Your task to perform on an android device: Search for "logitech g pro" on walmart.com, select the first entry, and add it to the cart. Image 0: 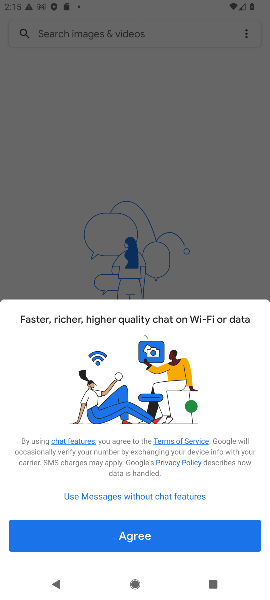
Step 0: press home button
Your task to perform on an android device: Search for "logitech g pro" on walmart.com, select the first entry, and add it to the cart. Image 1: 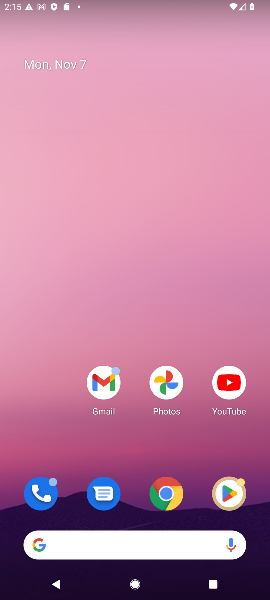
Step 1: drag from (135, 472) to (147, 110)
Your task to perform on an android device: Search for "logitech g pro" on walmart.com, select the first entry, and add it to the cart. Image 2: 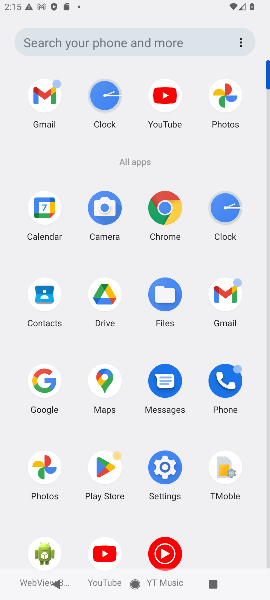
Step 2: click (164, 203)
Your task to perform on an android device: Search for "logitech g pro" on walmart.com, select the first entry, and add it to the cart. Image 3: 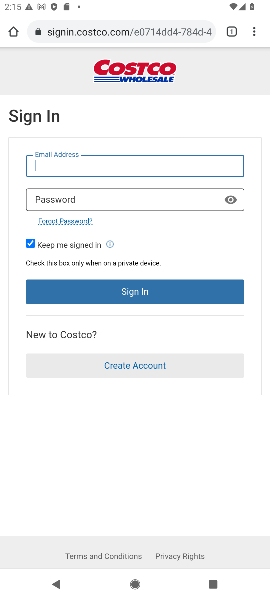
Step 3: click (85, 28)
Your task to perform on an android device: Search for "logitech g pro" on walmart.com, select the first entry, and add it to the cart. Image 4: 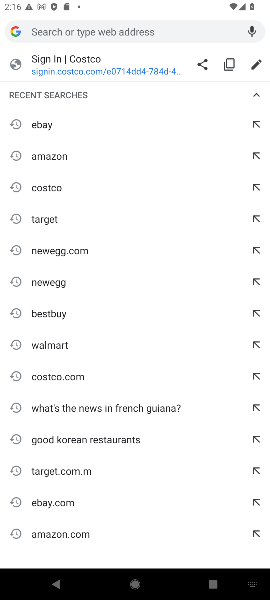
Step 4: type "walmart"
Your task to perform on an android device: Search for "logitech g pro" on walmart.com, select the first entry, and add it to the cart. Image 5: 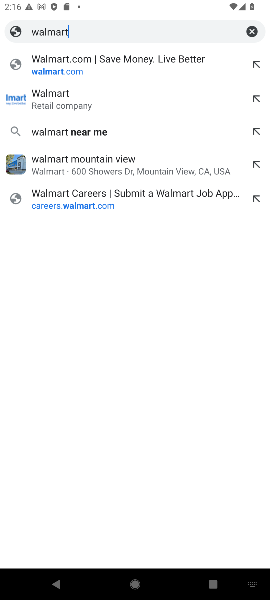
Step 5: click (85, 62)
Your task to perform on an android device: Search for "logitech g pro" on walmart.com, select the first entry, and add it to the cart. Image 6: 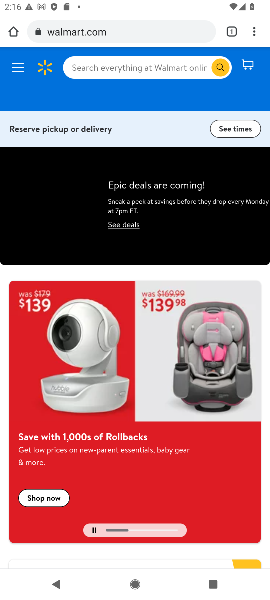
Step 6: click (110, 60)
Your task to perform on an android device: Search for "logitech g pro" on walmart.com, select the first entry, and add it to the cart. Image 7: 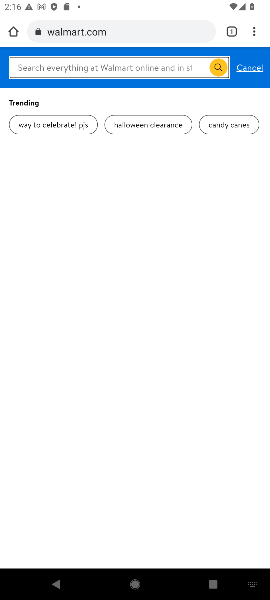
Step 7: type "logitech g pro"
Your task to perform on an android device: Search for "logitech g pro" on walmart.com, select the first entry, and add it to the cart. Image 8: 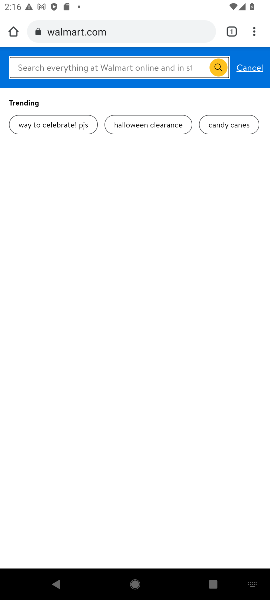
Step 8: type ""
Your task to perform on an android device: Search for "logitech g pro" on walmart.com, select the first entry, and add it to the cart. Image 9: 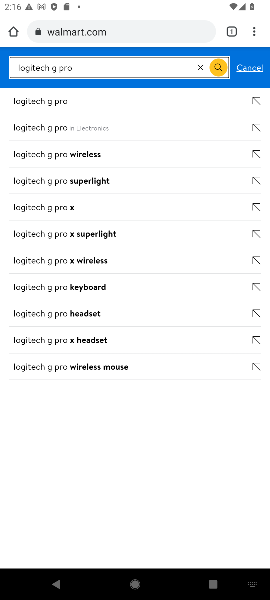
Step 9: click (26, 135)
Your task to perform on an android device: Search for "logitech g pro" on walmart.com, select the first entry, and add it to the cart. Image 10: 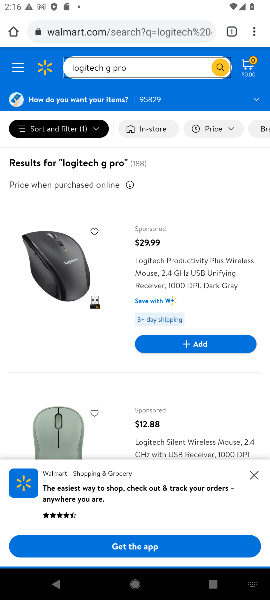
Step 10: click (170, 267)
Your task to perform on an android device: Search for "logitech g pro" on walmart.com, select the first entry, and add it to the cart. Image 11: 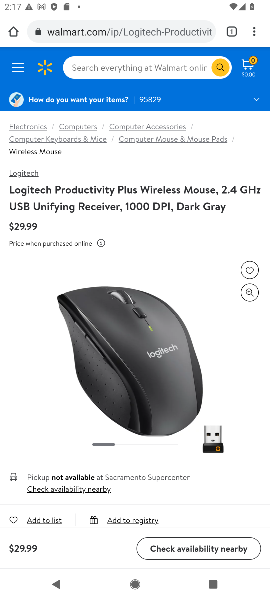
Step 11: drag from (144, 492) to (165, 146)
Your task to perform on an android device: Search for "logitech g pro" on walmart.com, select the first entry, and add it to the cart. Image 12: 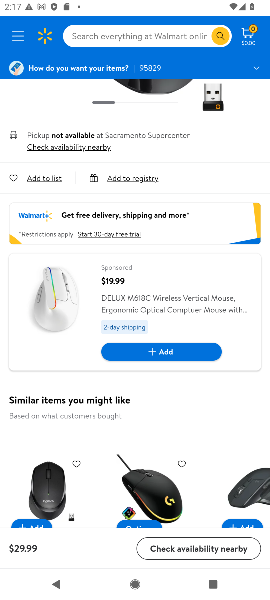
Step 12: drag from (162, 437) to (197, 127)
Your task to perform on an android device: Search for "logitech g pro" on walmart.com, select the first entry, and add it to the cart. Image 13: 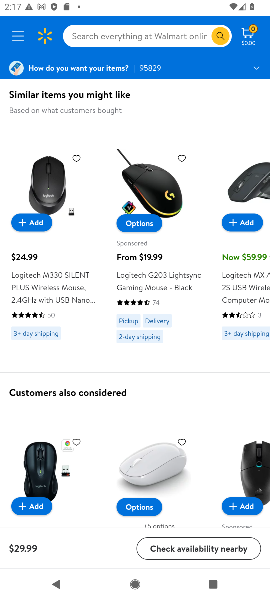
Step 13: drag from (103, 547) to (152, 144)
Your task to perform on an android device: Search for "logitech g pro" on walmart.com, select the first entry, and add it to the cart. Image 14: 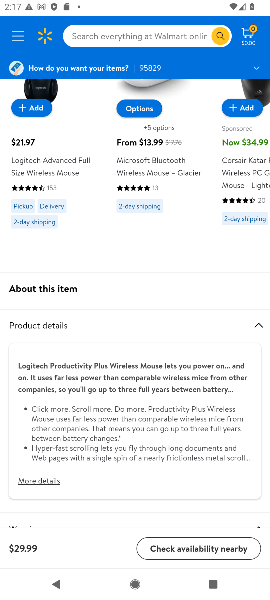
Step 14: click (205, 548)
Your task to perform on an android device: Search for "logitech g pro" on walmart.com, select the first entry, and add it to the cart. Image 15: 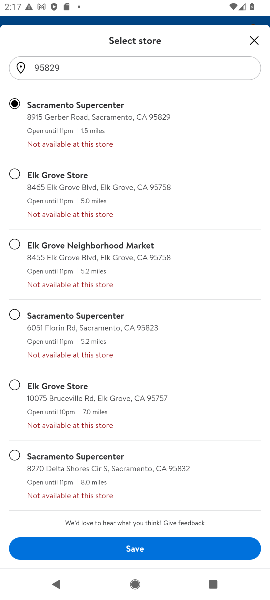
Step 15: click (135, 553)
Your task to perform on an android device: Search for "logitech g pro" on walmart.com, select the first entry, and add it to the cart. Image 16: 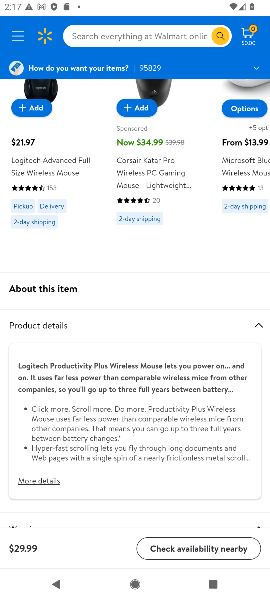
Step 16: task complete